Your task to perform on an android device: Clear the shopping cart on target.com. Add razer thresher to the cart on target.com, then select checkout. Image 0: 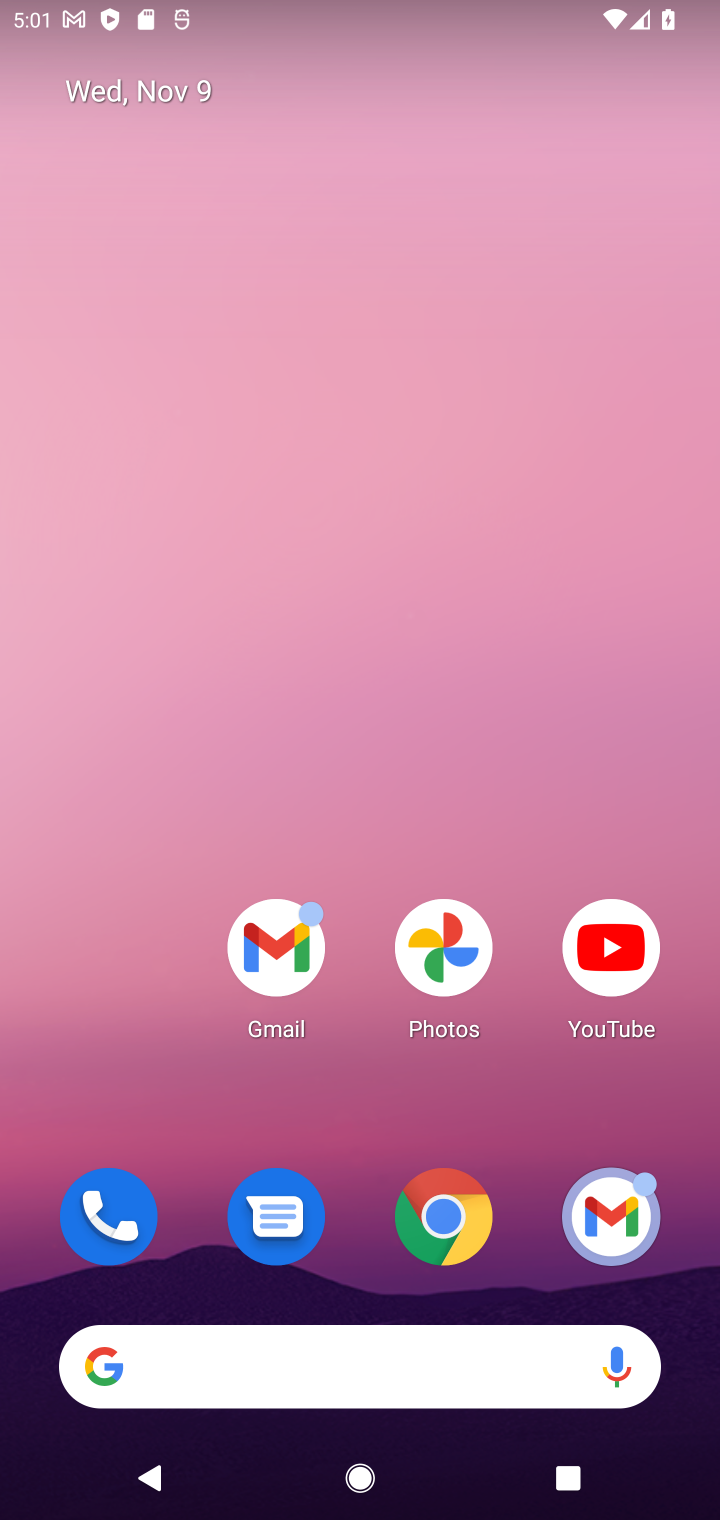
Step 0: drag from (372, 1285) to (500, 209)
Your task to perform on an android device: Clear the shopping cart on target.com. Add razer thresher to the cart on target.com, then select checkout. Image 1: 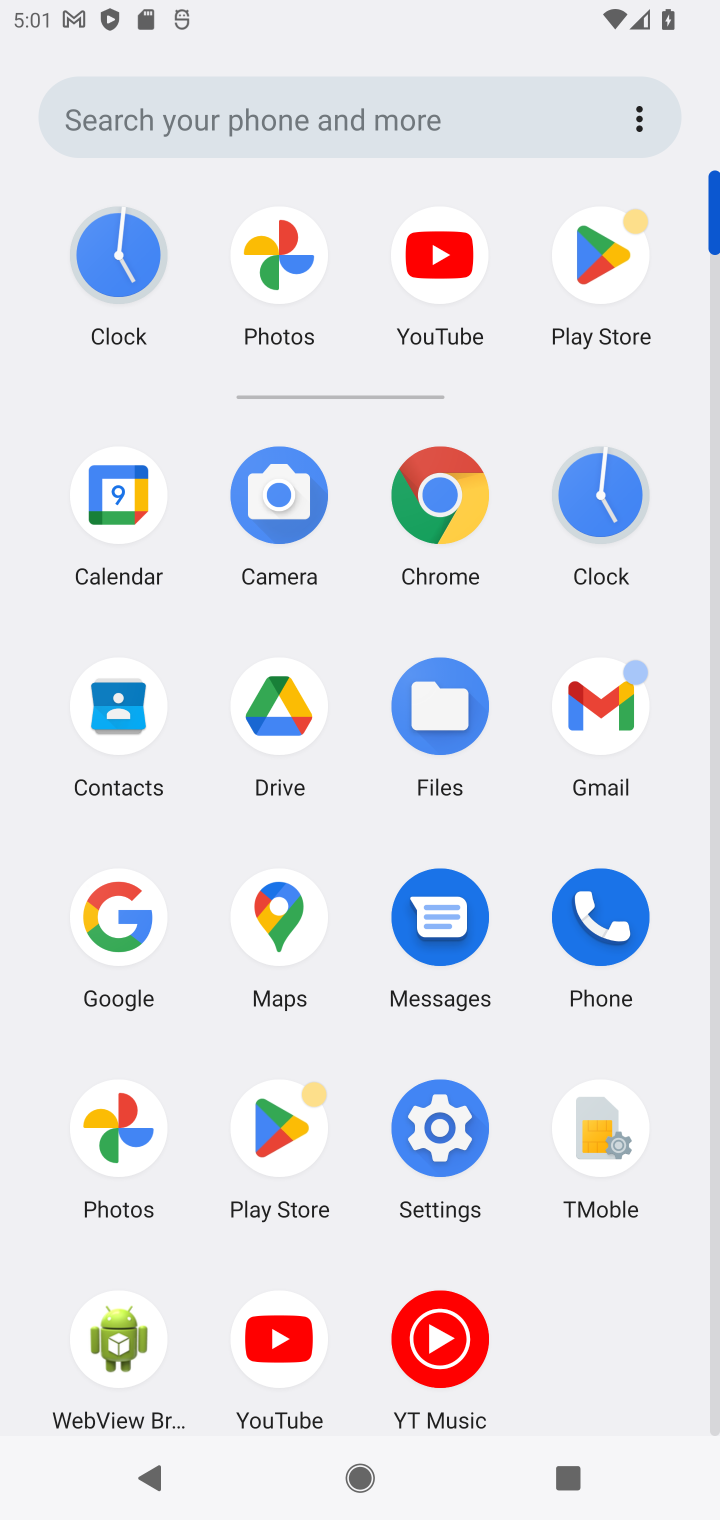
Step 1: click (425, 507)
Your task to perform on an android device: Clear the shopping cart on target.com. Add razer thresher to the cart on target.com, then select checkout. Image 2: 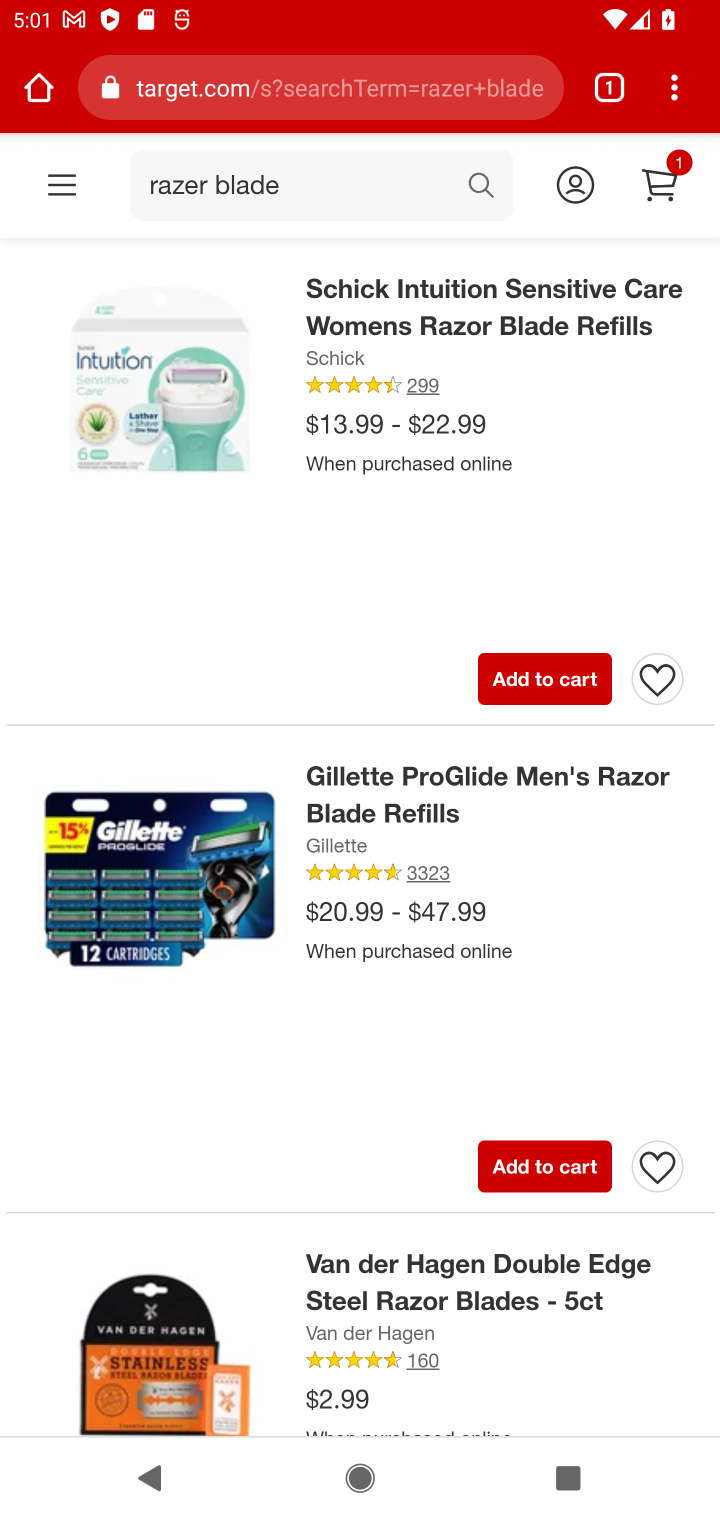
Step 2: click (375, 83)
Your task to perform on an android device: Clear the shopping cart on target.com. Add razer thresher to the cart on target.com, then select checkout. Image 3: 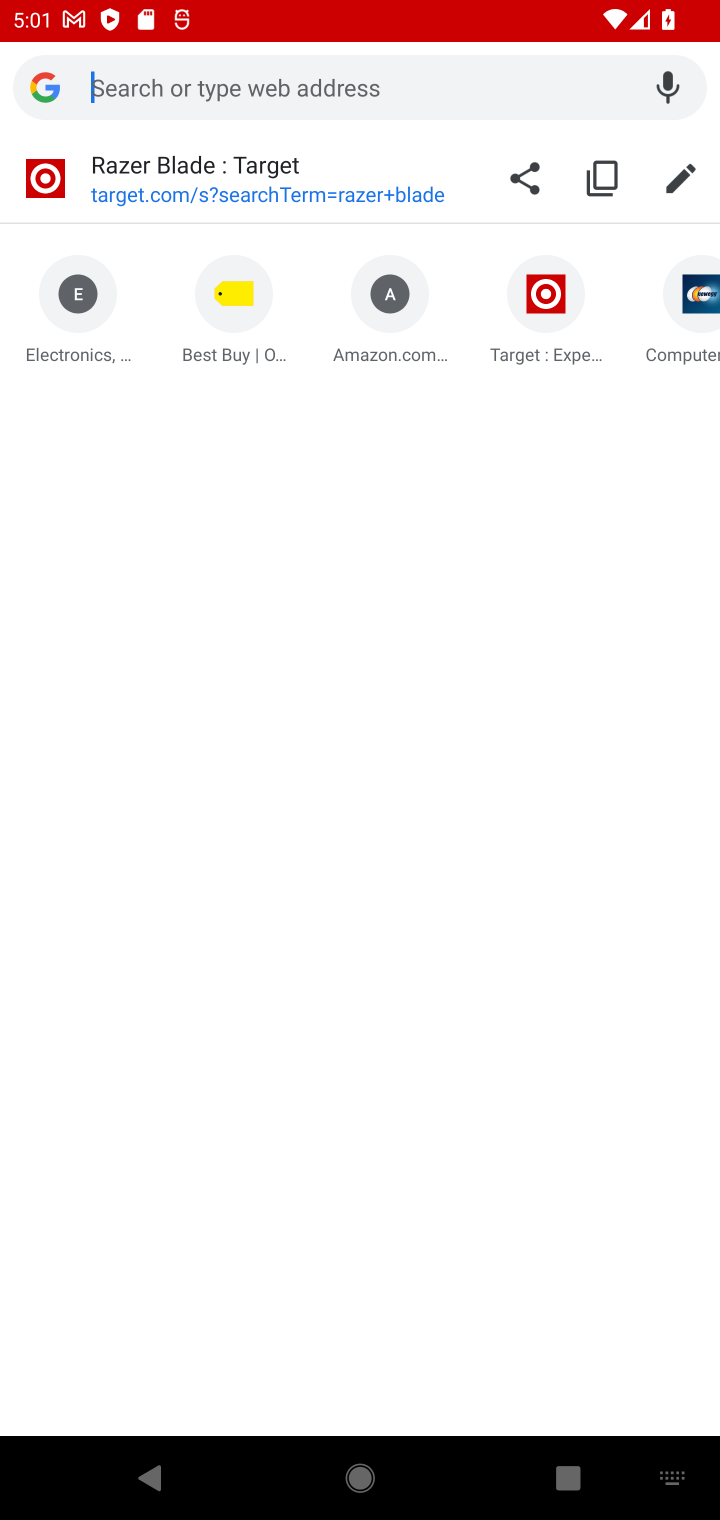
Step 3: type "target.com"
Your task to perform on an android device: Clear the shopping cart on target.com. Add razer thresher to the cart on target.com, then select checkout. Image 4: 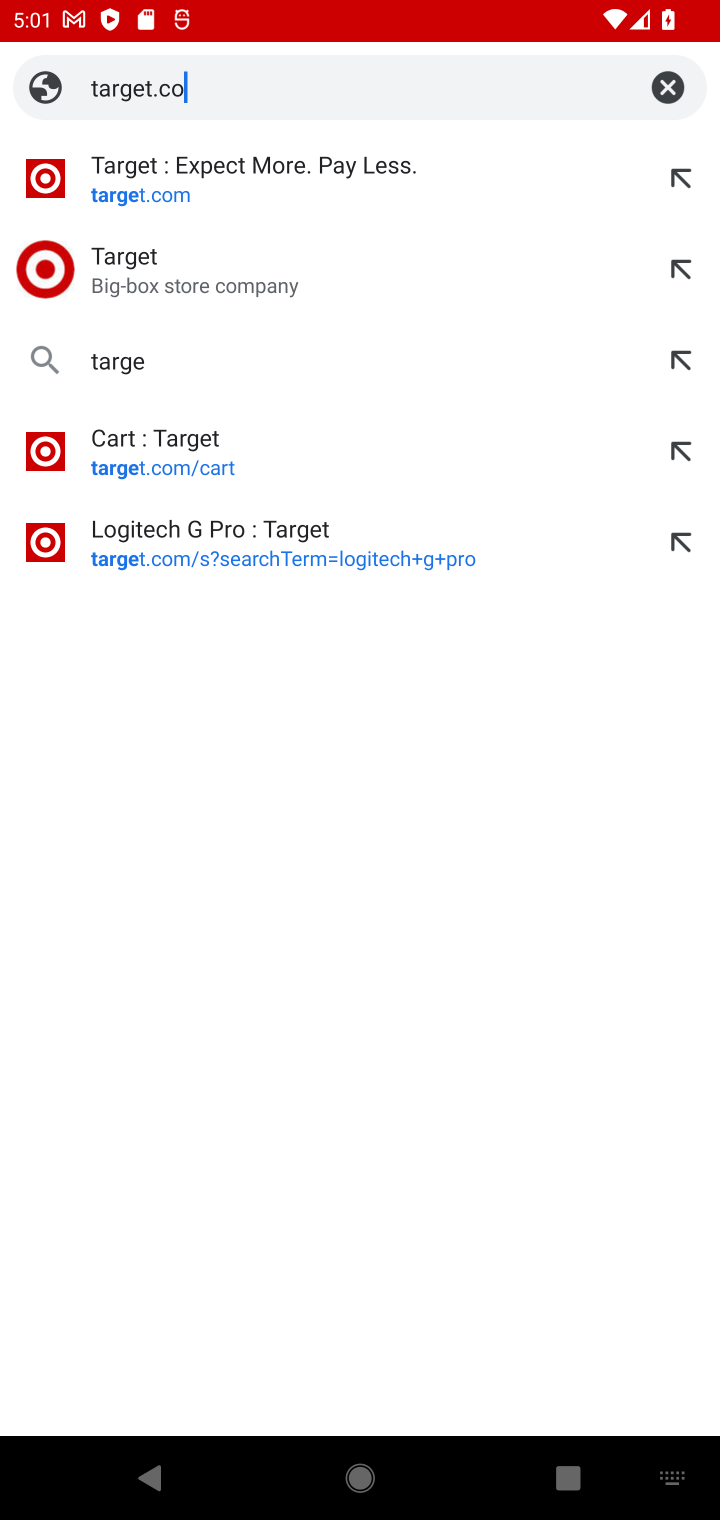
Step 4: press enter
Your task to perform on an android device: Clear the shopping cart on target.com. Add razer thresher to the cart on target.com, then select checkout. Image 5: 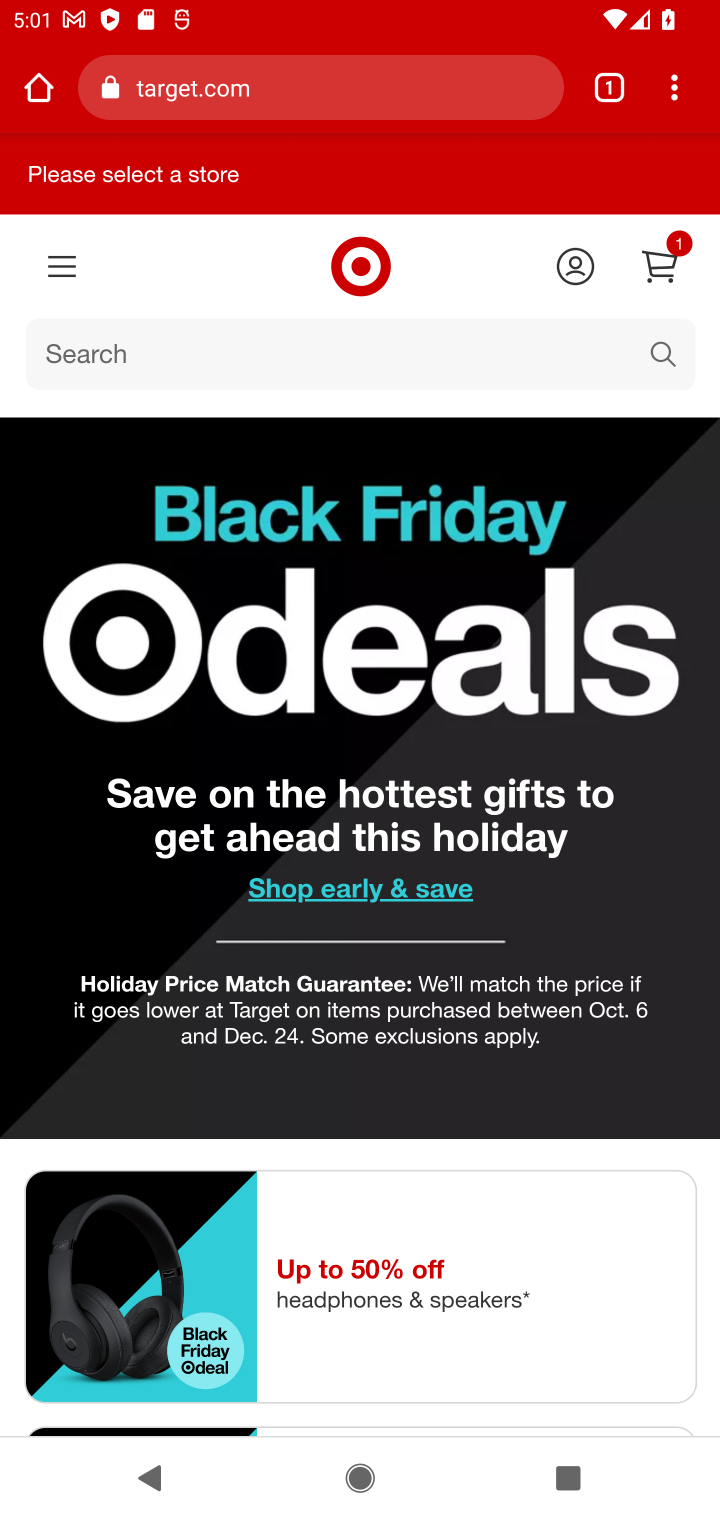
Step 5: click (664, 248)
Your task to perform on an android device: Clear the shopping cart on target.com. Add razer thresher to the cart on target.com, then select checkout. Image 6: 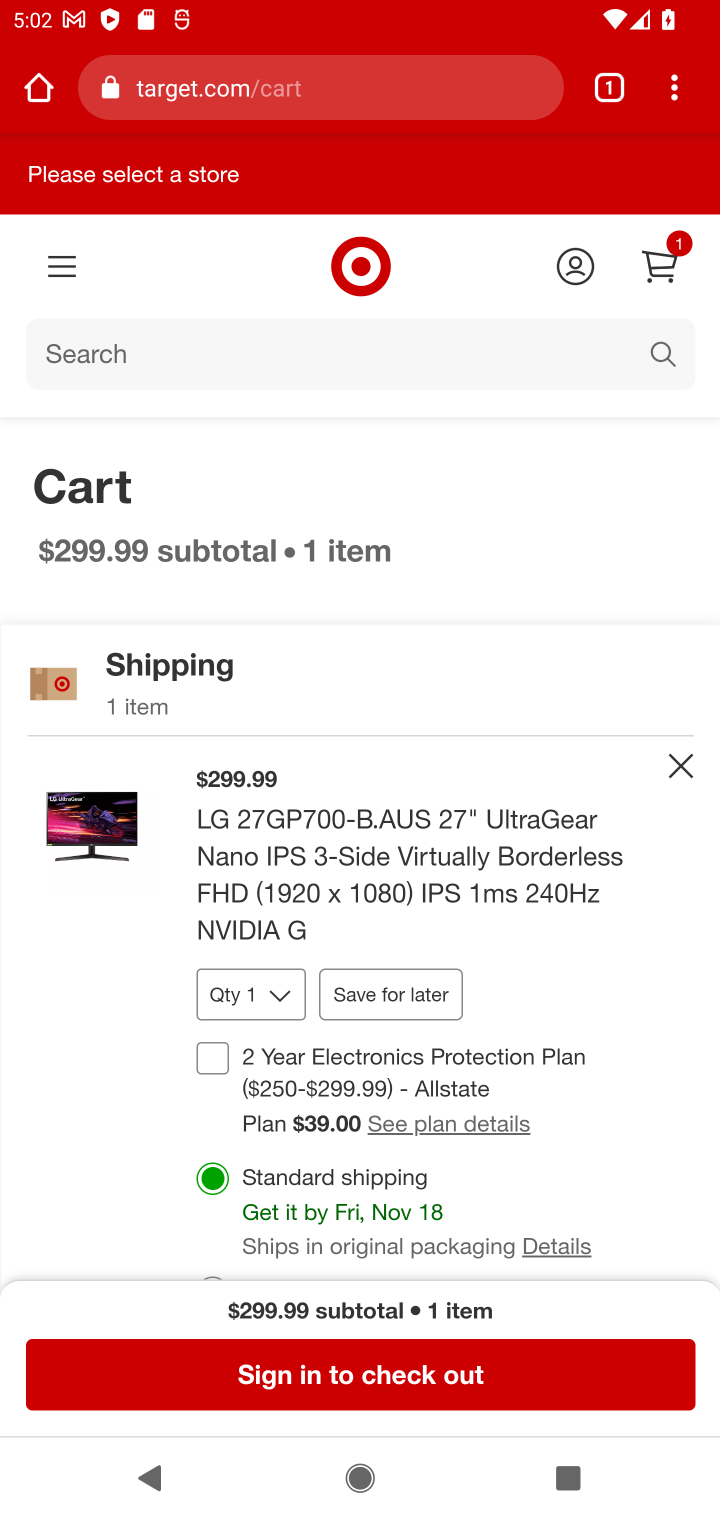
Step 6: click (673, 764)
Your task to perform on an android device: Clear the shopping cart on target.com. Add razer thresher to the cart on target.com, then select checkout. Image 7: 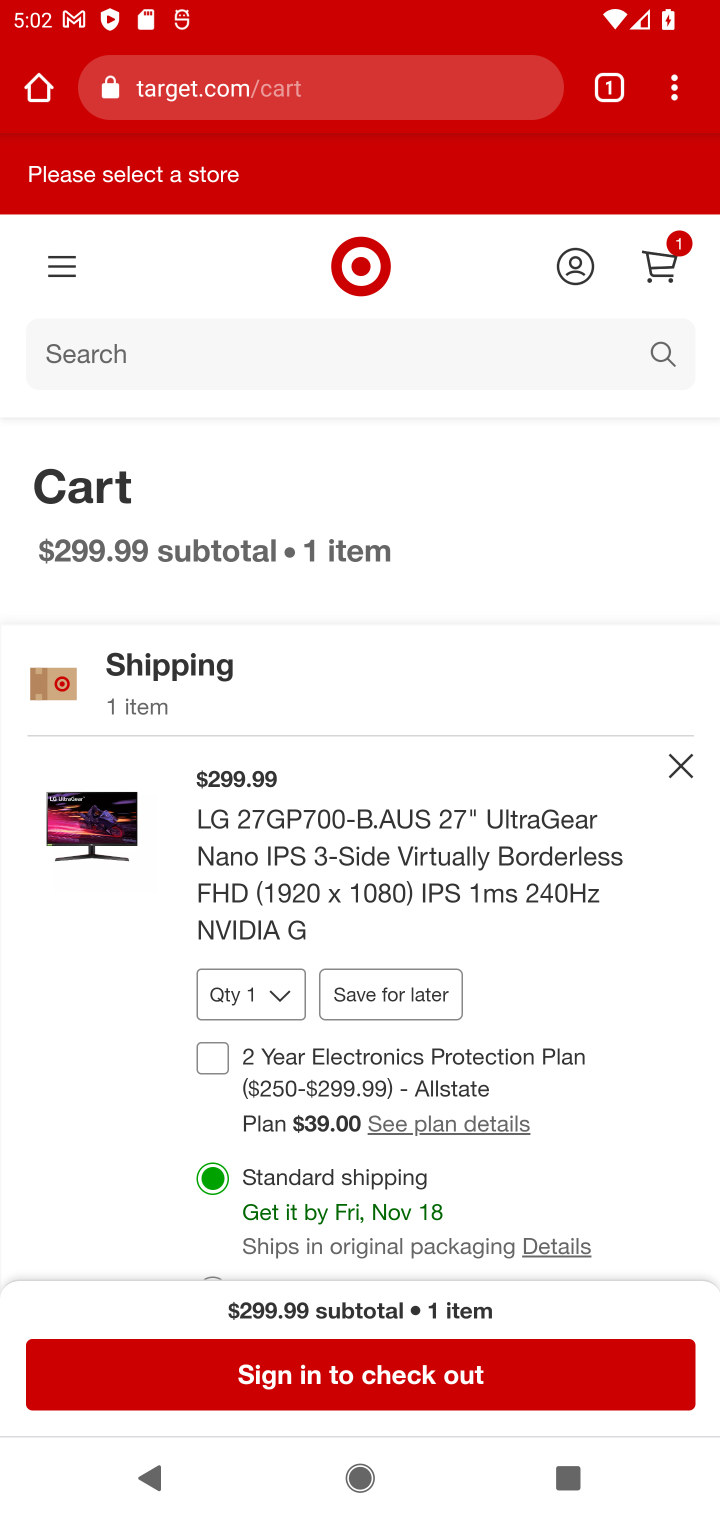
Step 7: click (673, 764)
Your task to perform on an android device: Clear the shopping cart on target.com. Add razer thresher to the cart on target.com, then select checkout. Image 8: 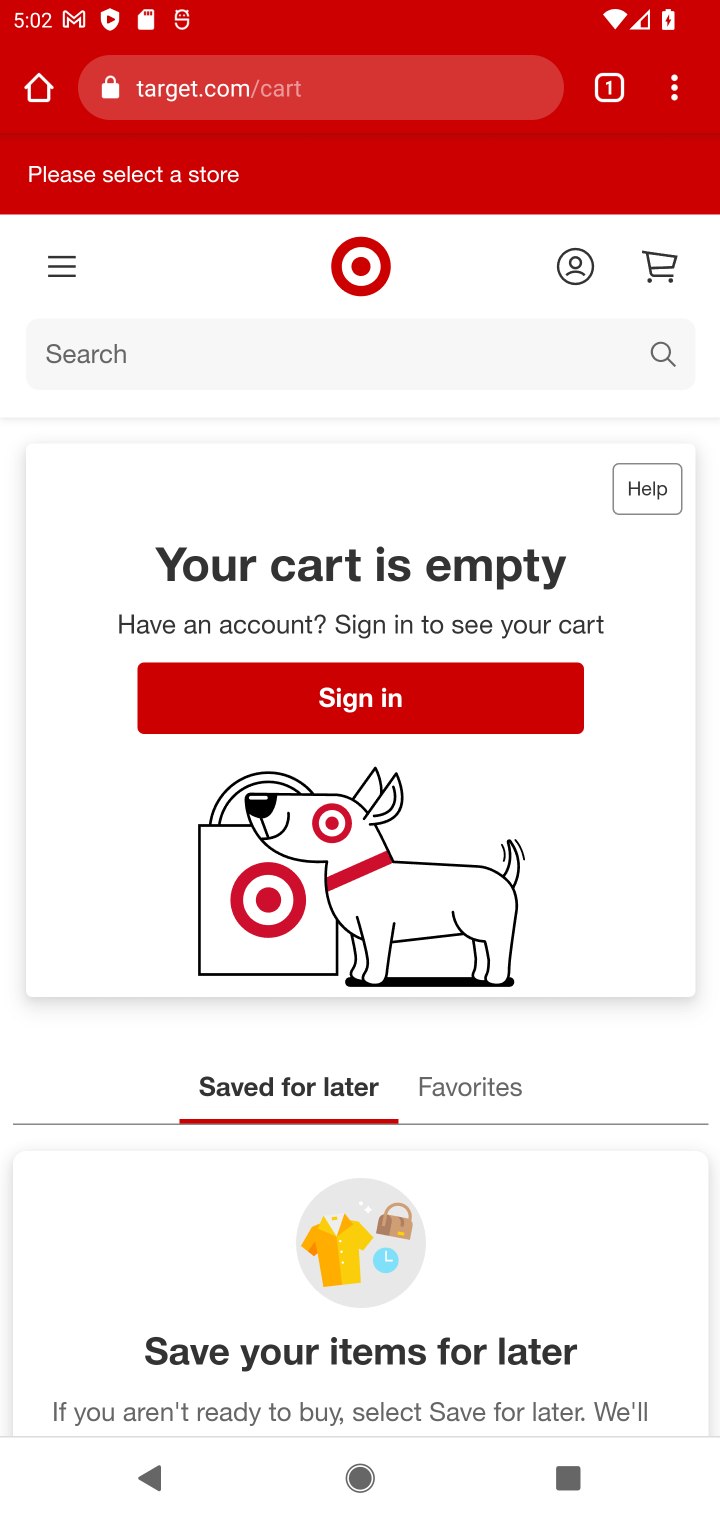
Step 8: click (342, 365)
Your task to perform on an android device: Clear the shopping cart on target.com. Add razer thresher to the cart on target.com, then select checkout. Image 9: 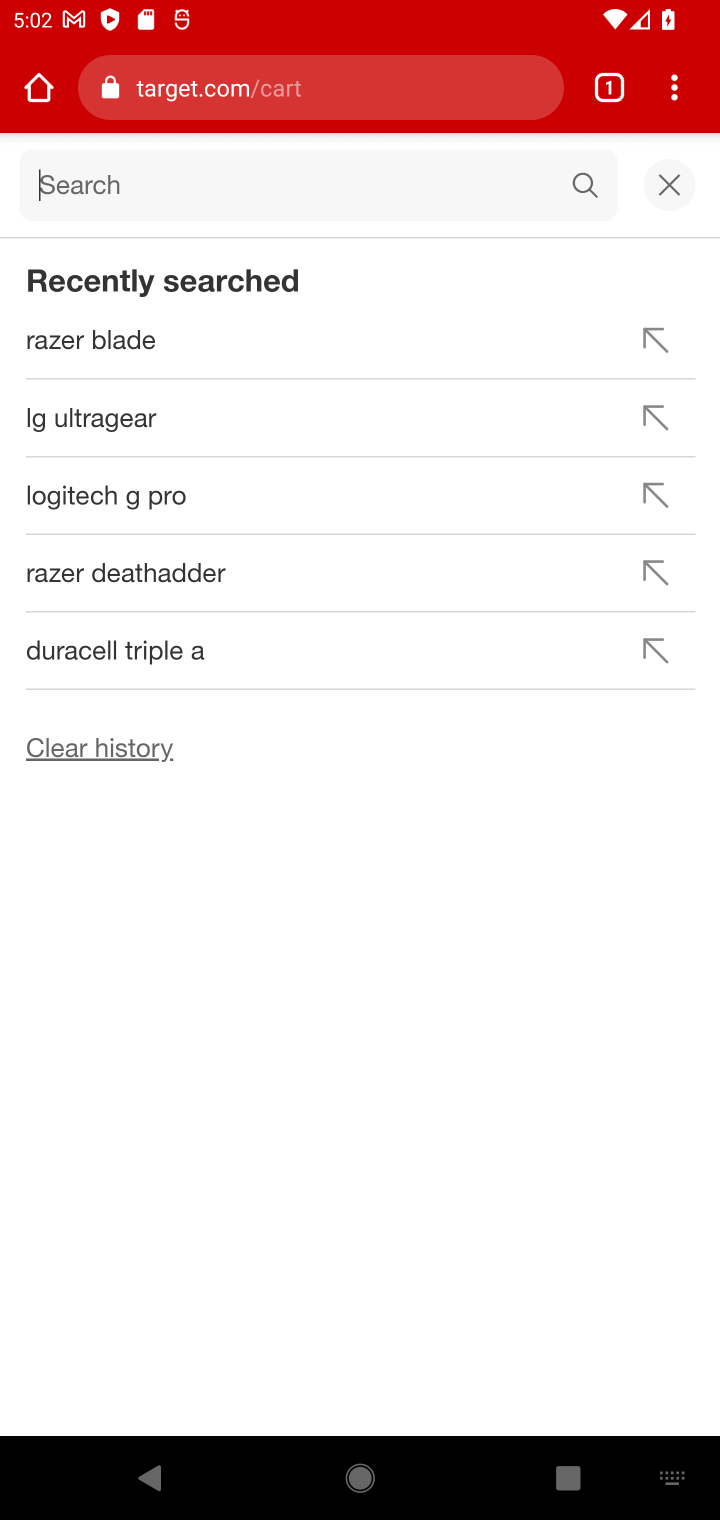
Step 9: type "razer thresher"
Your task to perform on an android device: Clear the shopping cart on target.com. Add razer thresher to the cart on target.com, then select checkout. Image 10: 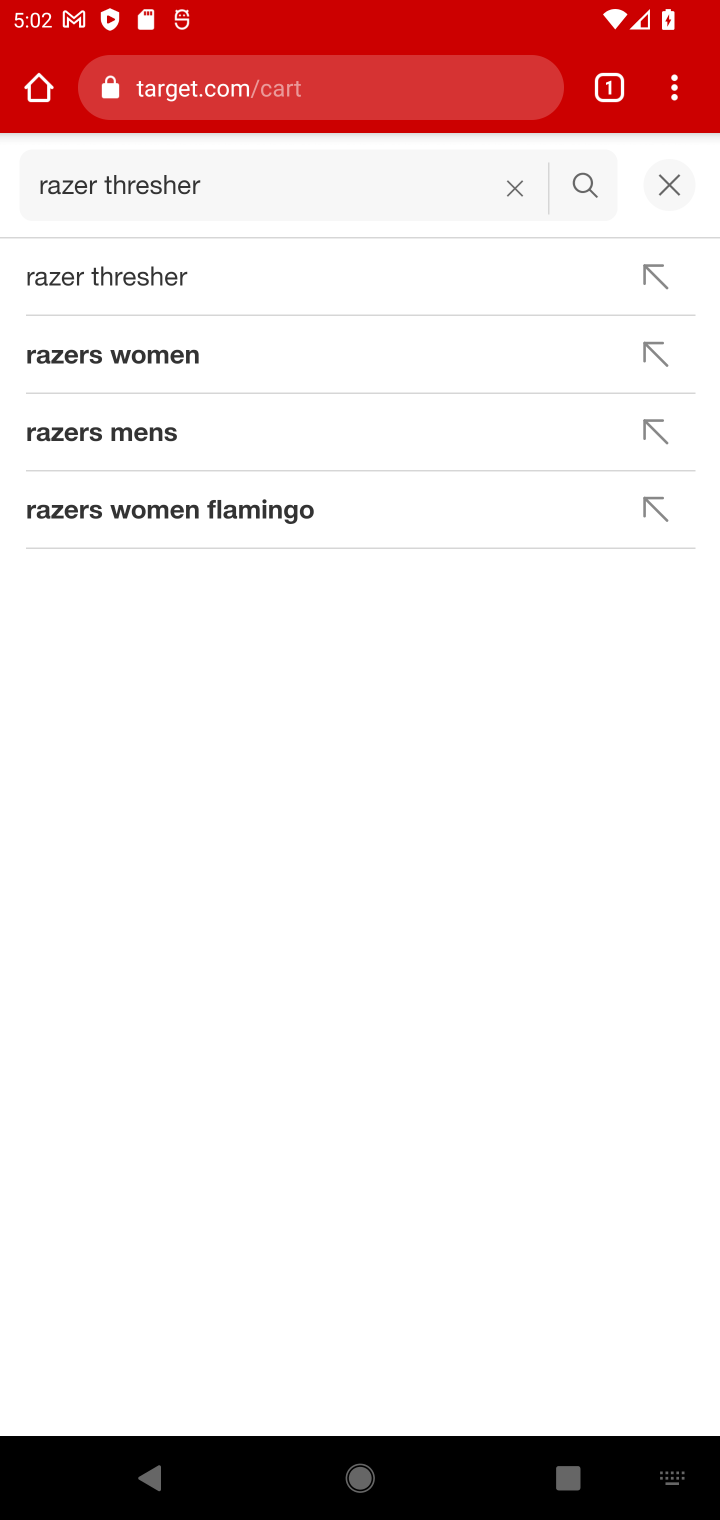
Step 10: press enter
Your task to perform on an android device: Clear the shopping cart on target.com. Add razer thresher to the cart on target.com, then select checkout. Image 11: 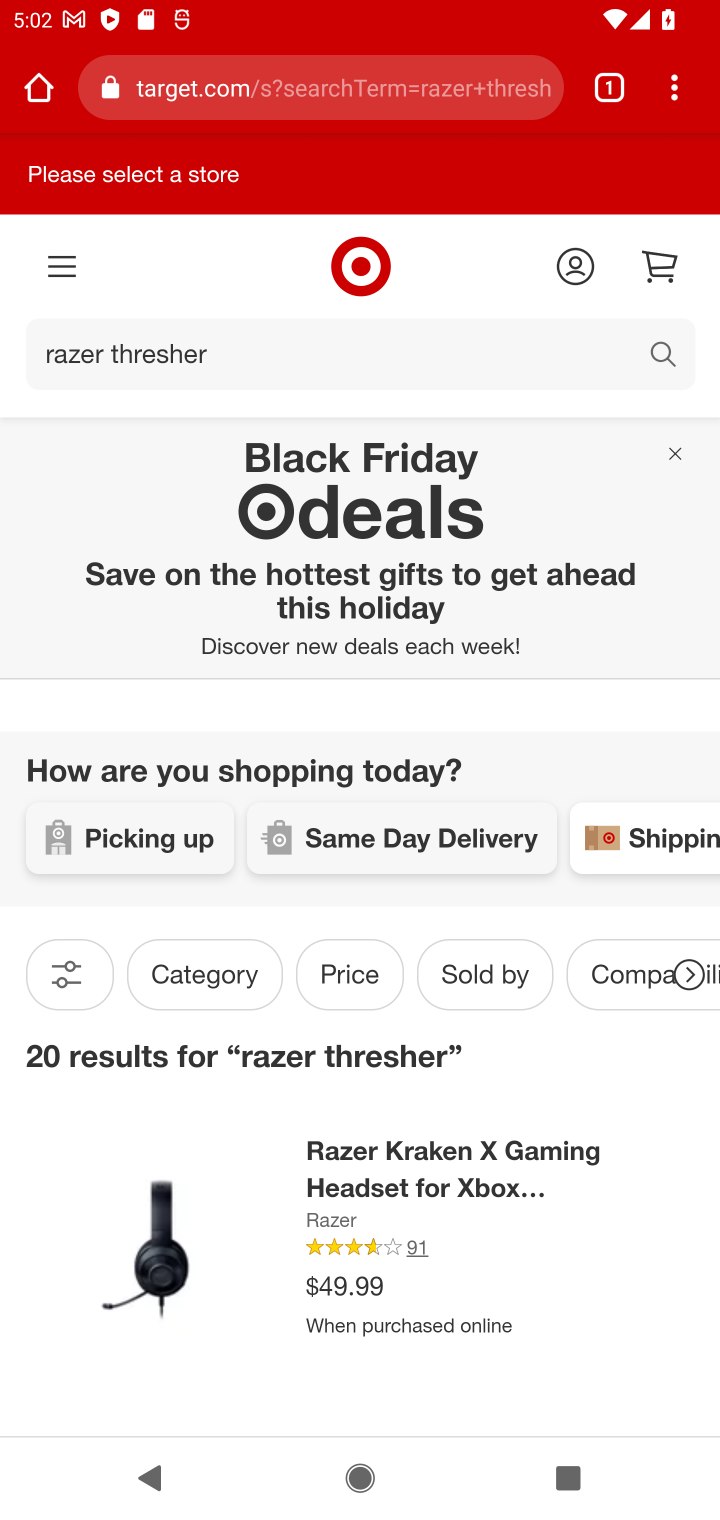
Step 11: task complete